Your task to perform on an android device: empty trash in the gmail app Image 0: 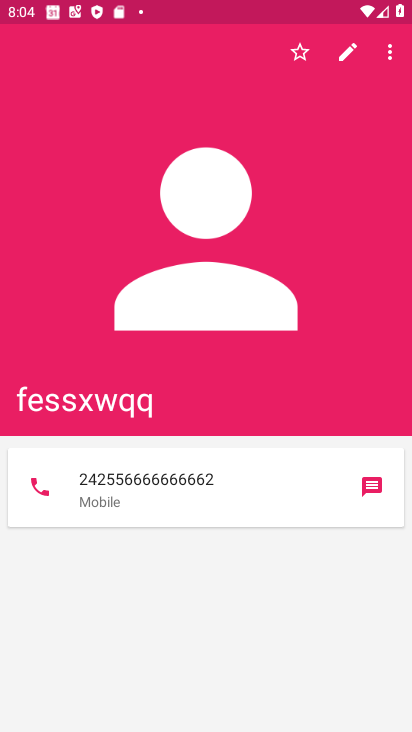
Step 0: press home button
Your task to perform on an android device: empty trash in the gmail app Image 1: 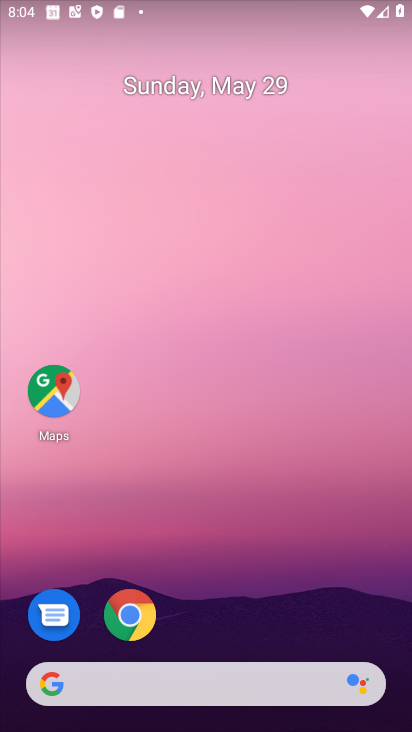
Step 1: drag from (304, 602) to (307, 171)
Your task to perform on an android device: empty trash in the gmail app Image 2: 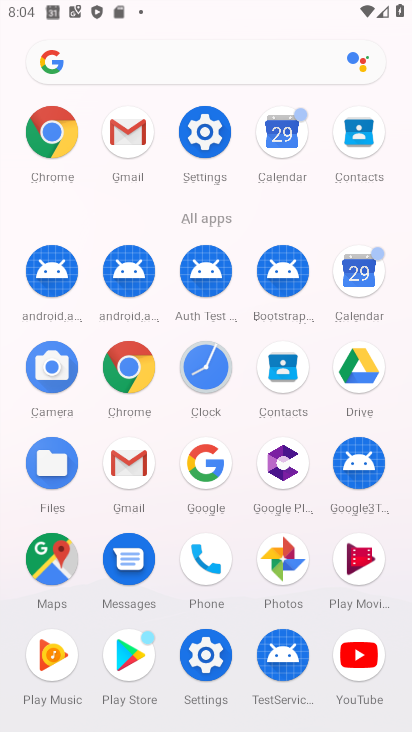
Step 2: click (119, 136)
Your task to perform on an android device: empty trash in the gmail app Image 3: 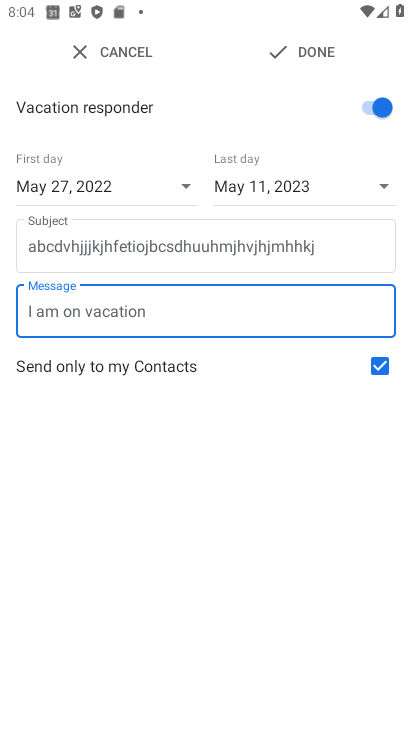
Step 3: press back button
Your task to perform on an android device: empty trash in the gmail app Image 4: 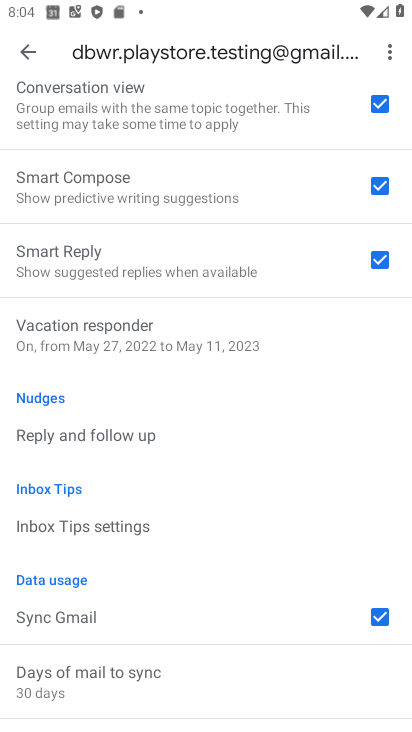
Step 4: press back button
Your task to perform on an android device: empty trash in the gmail app Image 5: 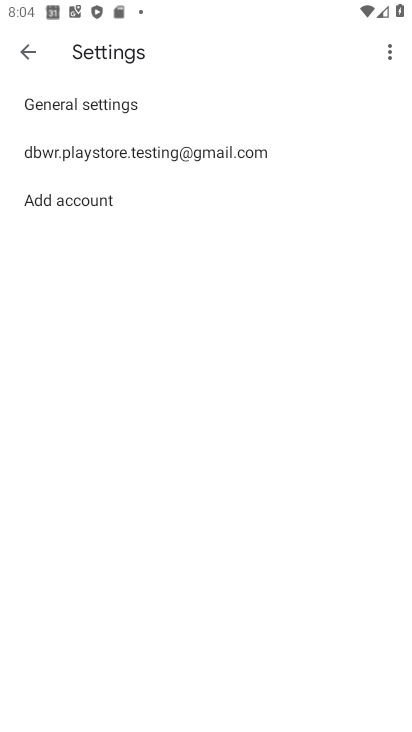
Step 5: press back button
Your task to perform on an android device: empty trash in the gmail app Image 6: 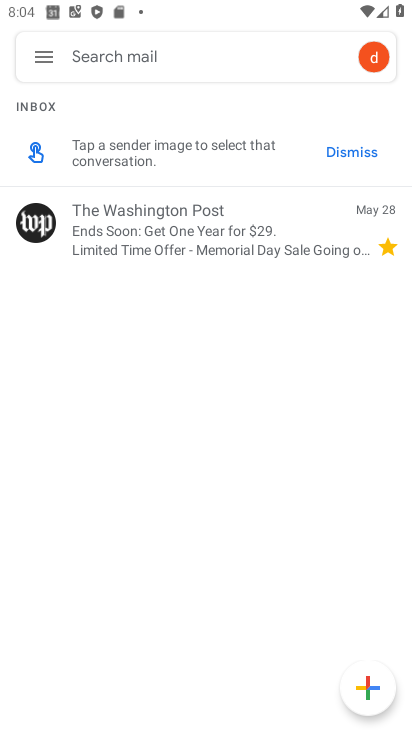
Step 6: click (42, 59)
Your task to perform on an android device: empty trash in the gmail app Image 7: 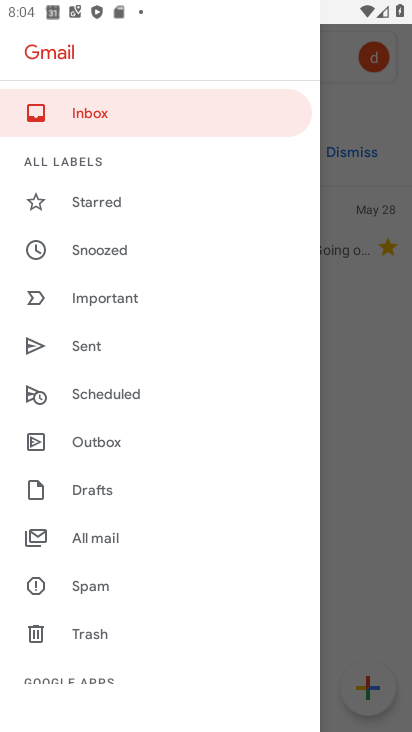
Step 7: click (102, 639)
Your task to perform on an android device: empty trash in the gmail app Image 8: 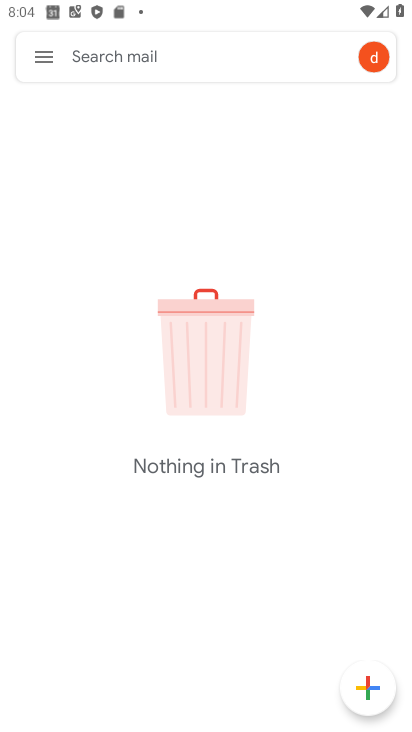
Step 8: task complete